Your task to perform on an android device: What is the price of a 12' ladder at Lowes? Image 0: 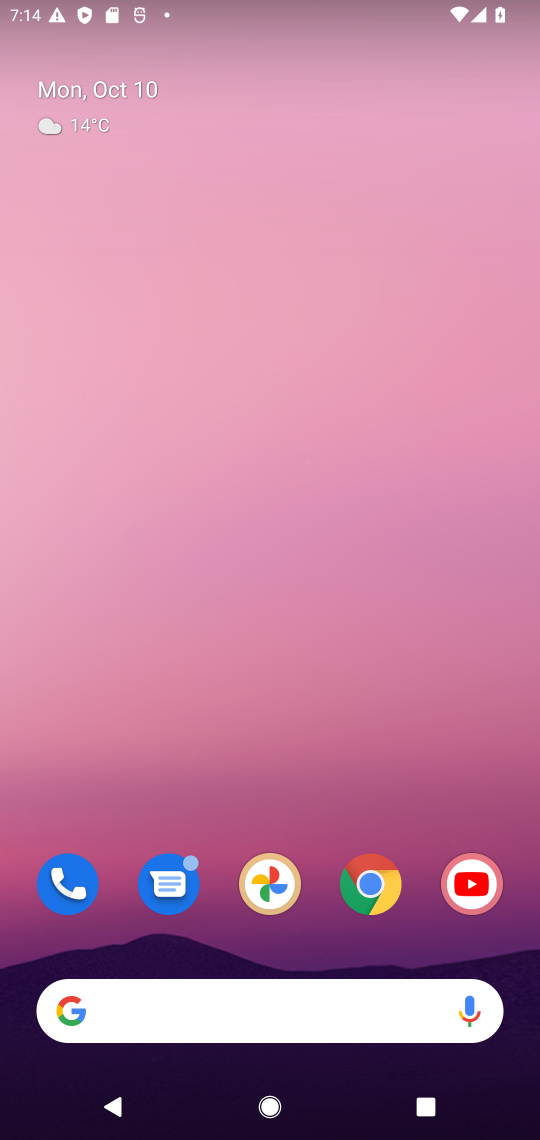
Step 0: click (337, 1024)
Your task to perform on an android device: What is the price of a 12' ladder at Lowes? Image 1: 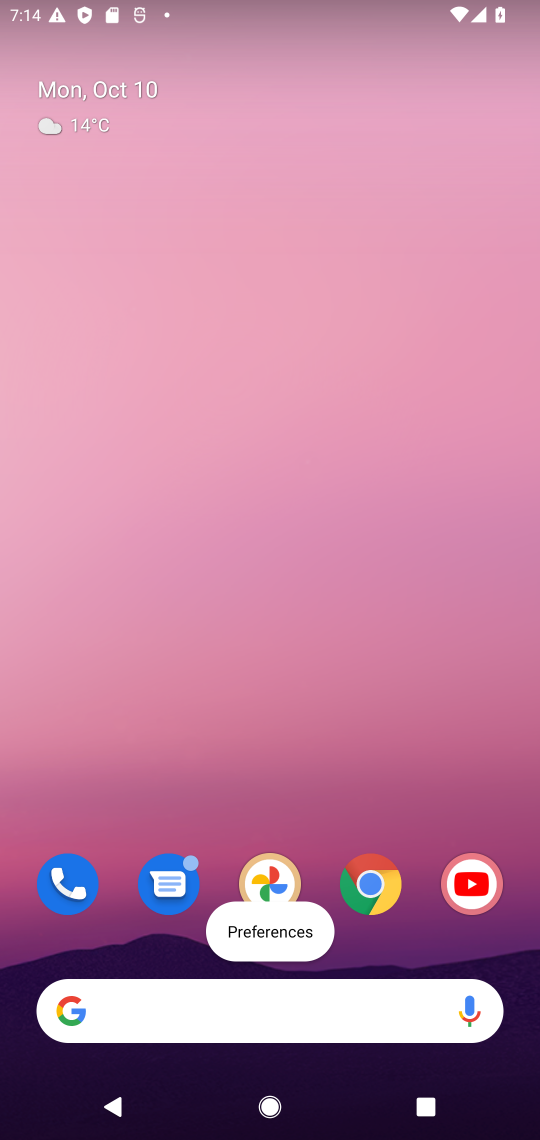
Step 1: click (346, 882)
Your task to perform on an android device: What is the price of a 12' ladder at Lowes? Image 2: 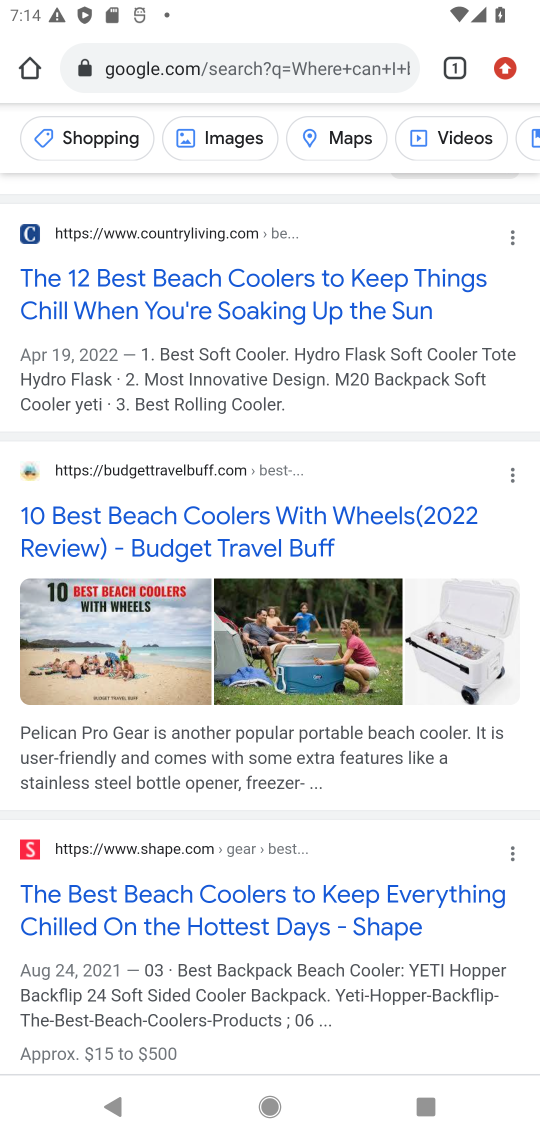
Step 2: click (323, 76)
Your task to perform on an android device: What is the price of a 12' ladder at Lowes? Image 3: 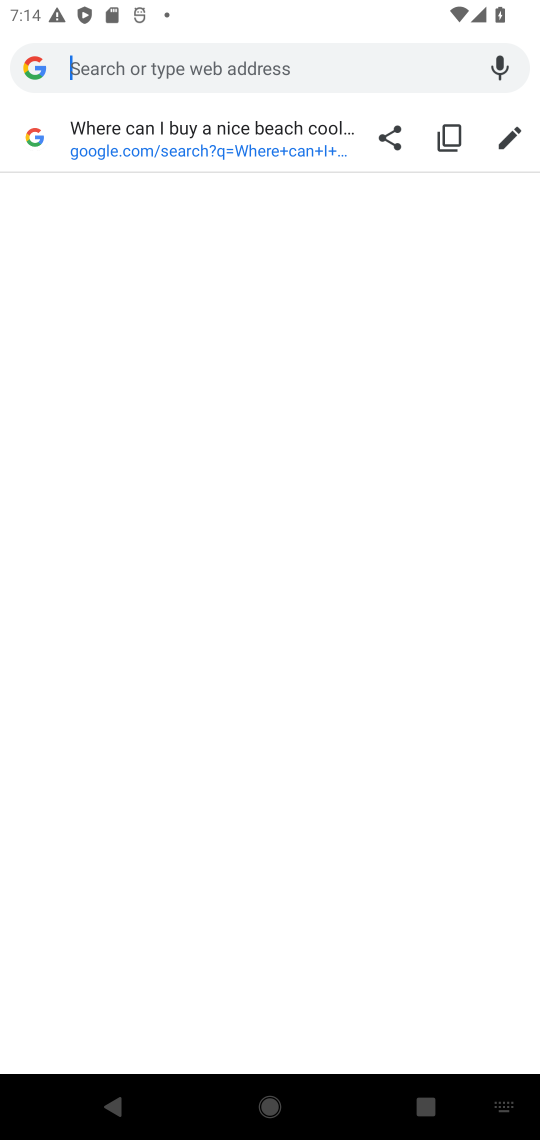
Step 3: type "What is the price of a 12' ladder at Lowes?"
Your task to perform on an android device: What is the price of a 12' ladder at Lowes? Image 4: 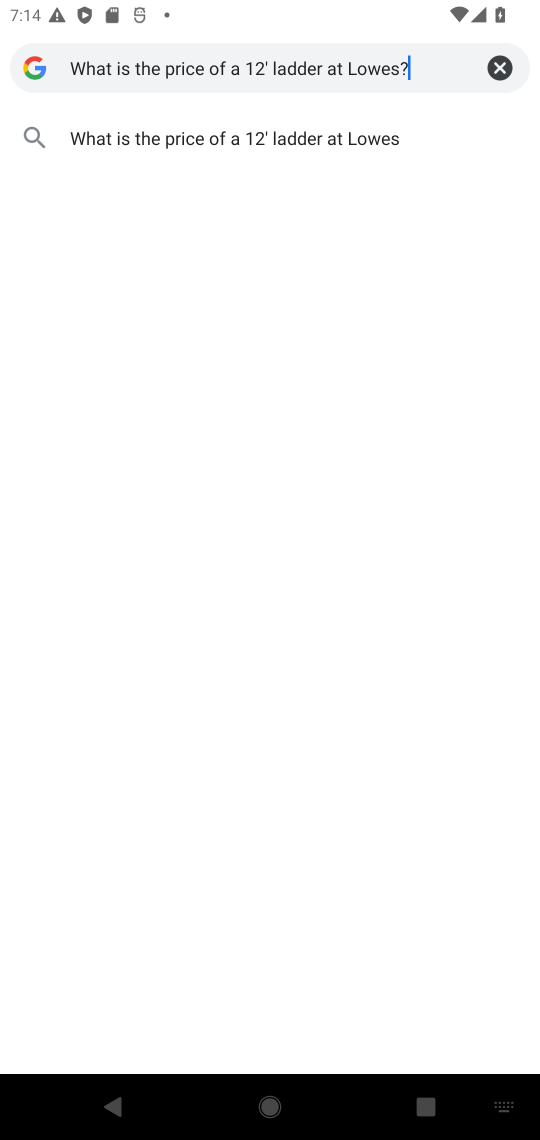
Step 4: type ""
Your task to perform on an android device: What is the price of a 12' ladder at Lowes? Image 5: 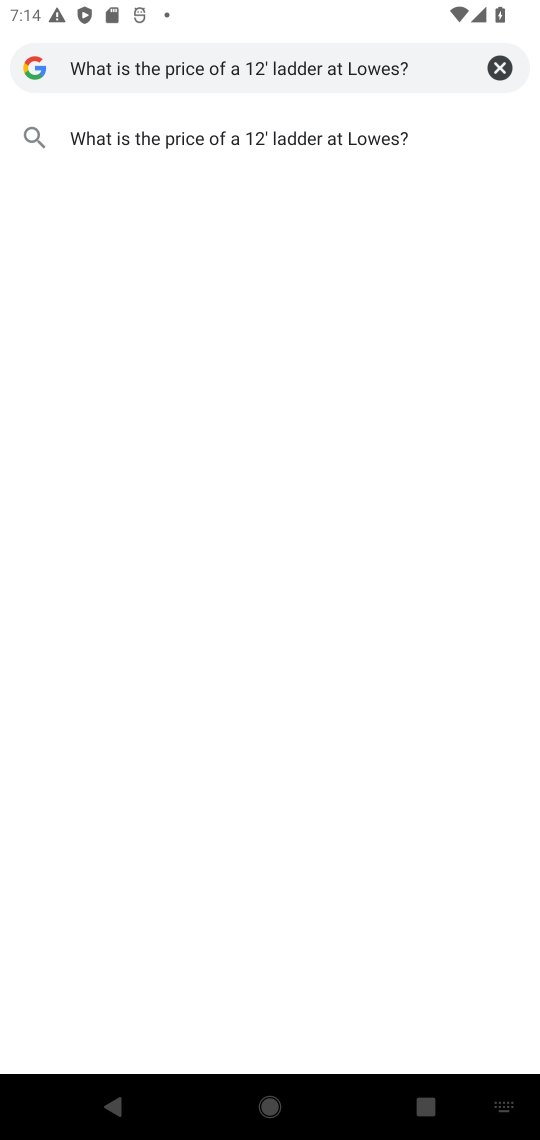
Step 5: click (361, 152)
Your task to perform on an android device: What is the price of a 12' ladder at Lowes? Image 6: 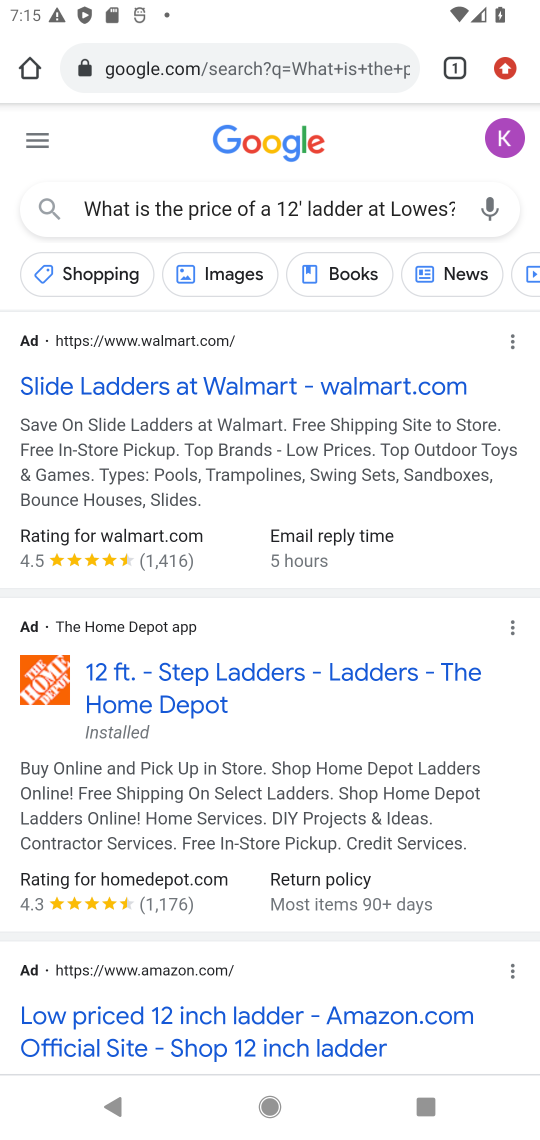
Step 6: drag from (201, 843) to (287, 421)
Your task to perform on an android device: What is the price of a 12' ladder at Lowes? Image 7: 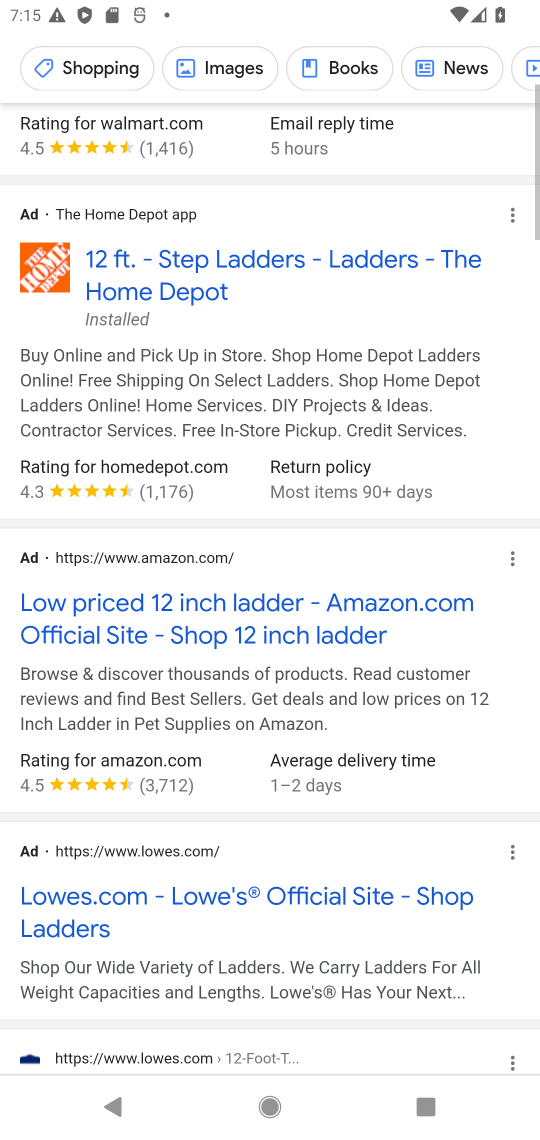
Step 7: drag from (306, 761) to (289, 362)
Your task to perform on an android device: What is the price of a 12' ladder at Lowes? Image 8: 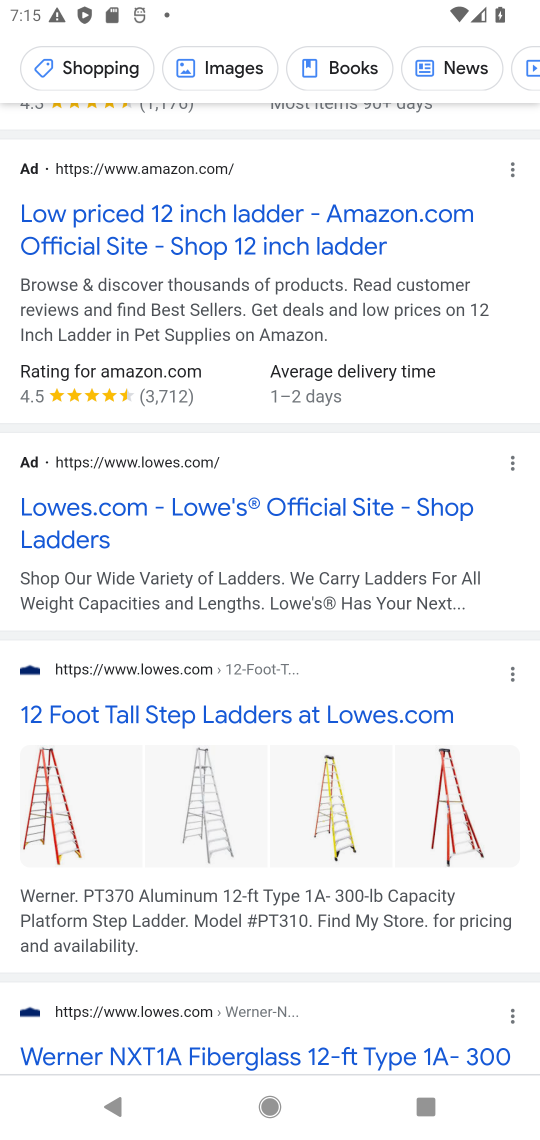
Step 8: drag from (222, 210) to (211, 832)
Your task to perform on an android device: What is the price of a 12' ladder at Lowes? Image 9: 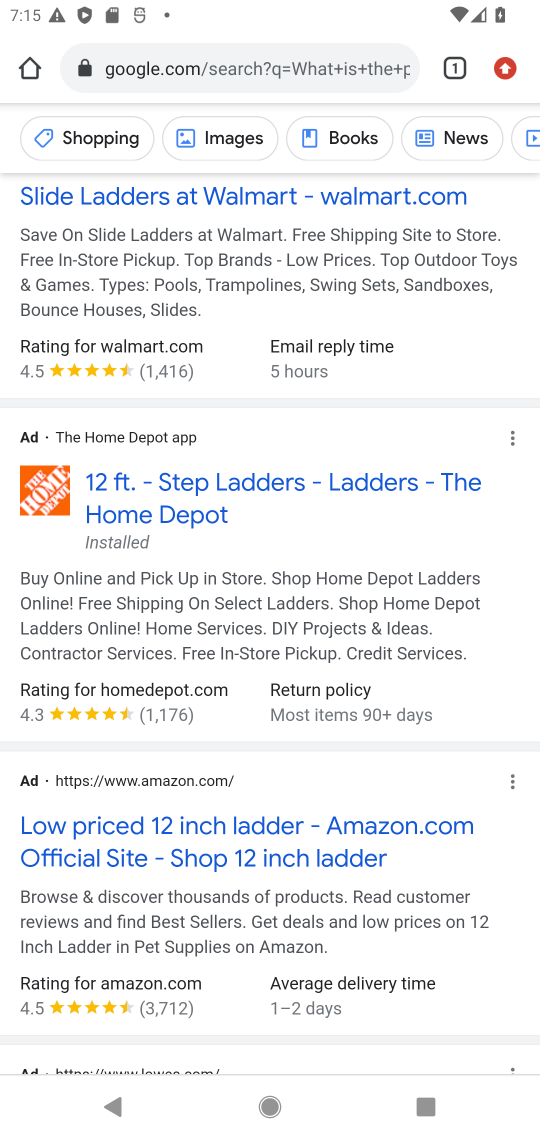
Step 9: click (130, 832)
Your task to perform on an android device: What is the price of a 12' ladder at Lowes? Image 10: 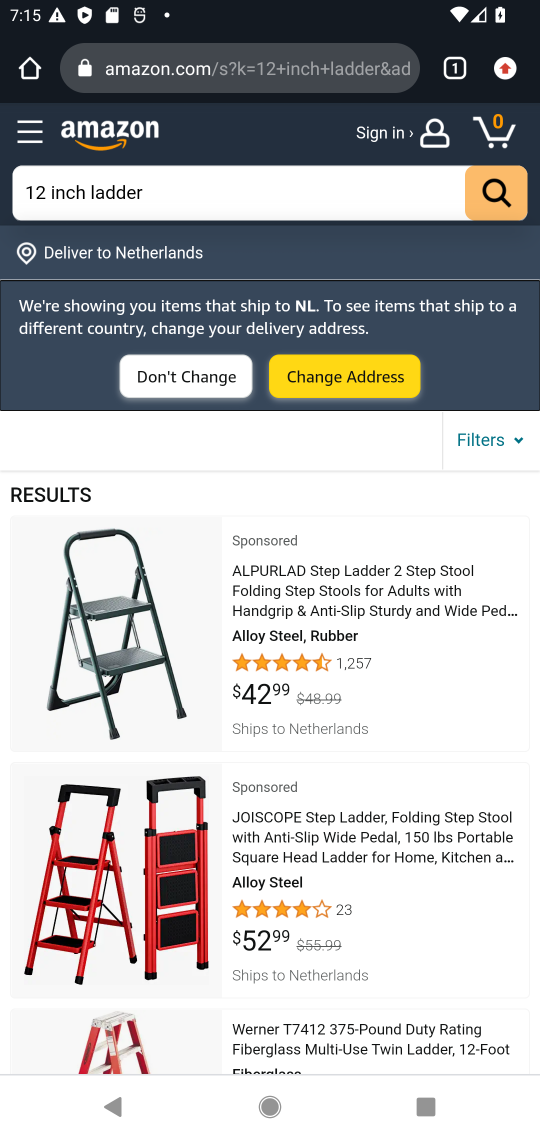
Step 10: drag from (146, 885) to (202, 469)
Your task to perform on an android device: What is the price of a 12' ladder at Lowes? Image 11: 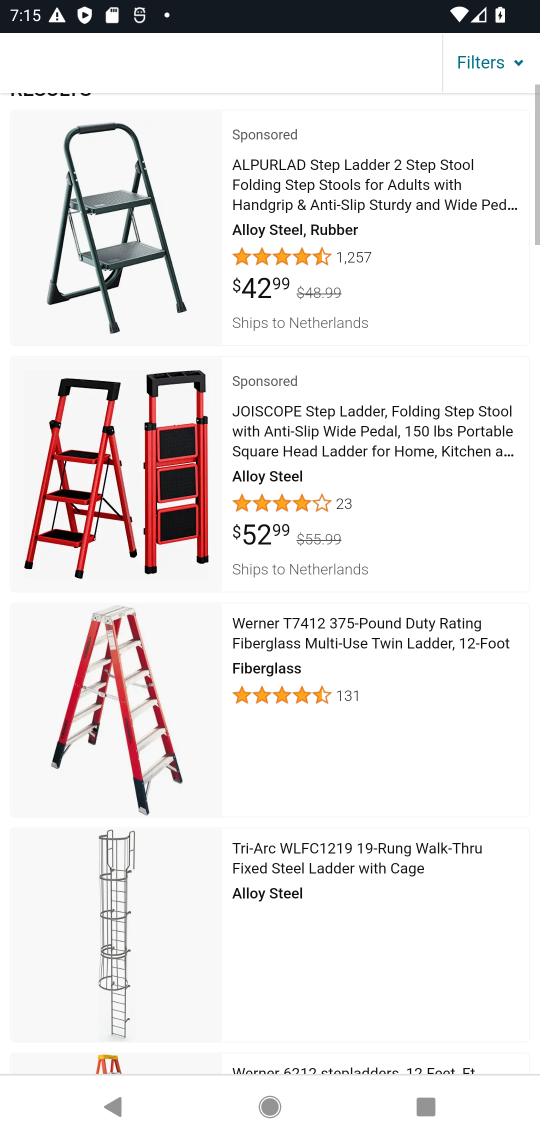
Step 11: drag from (264, 568) to (271, 442)
Your task to perform on an android device: What is the price of a 12' ladder at Lowes? Image 12: 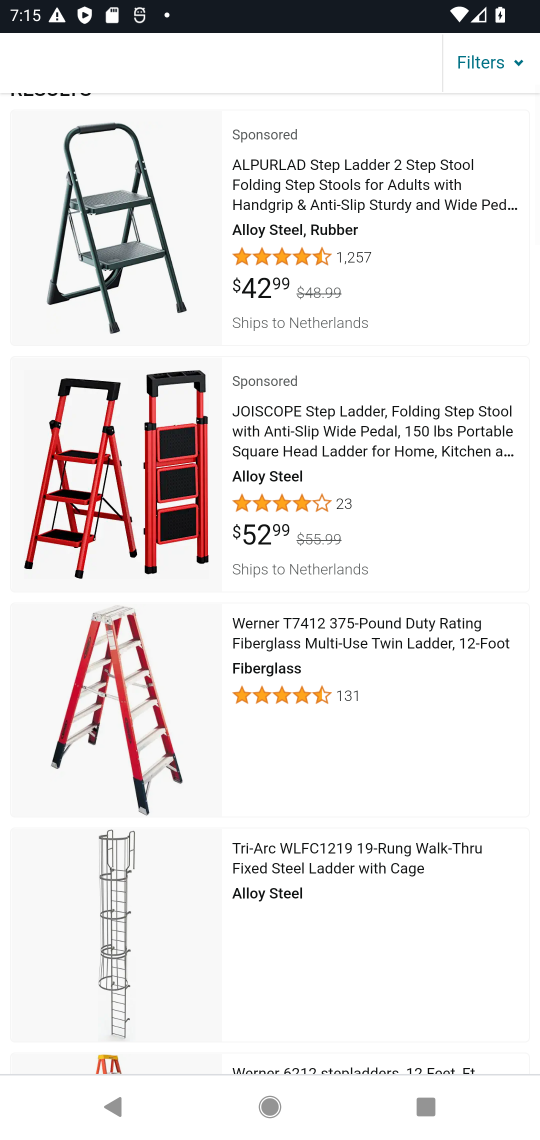
Step 12: drag from (233, 829) to (288, 418)
Your task to perform on an android device: What is the price of a 12' ladder at Lowes? Image 13: 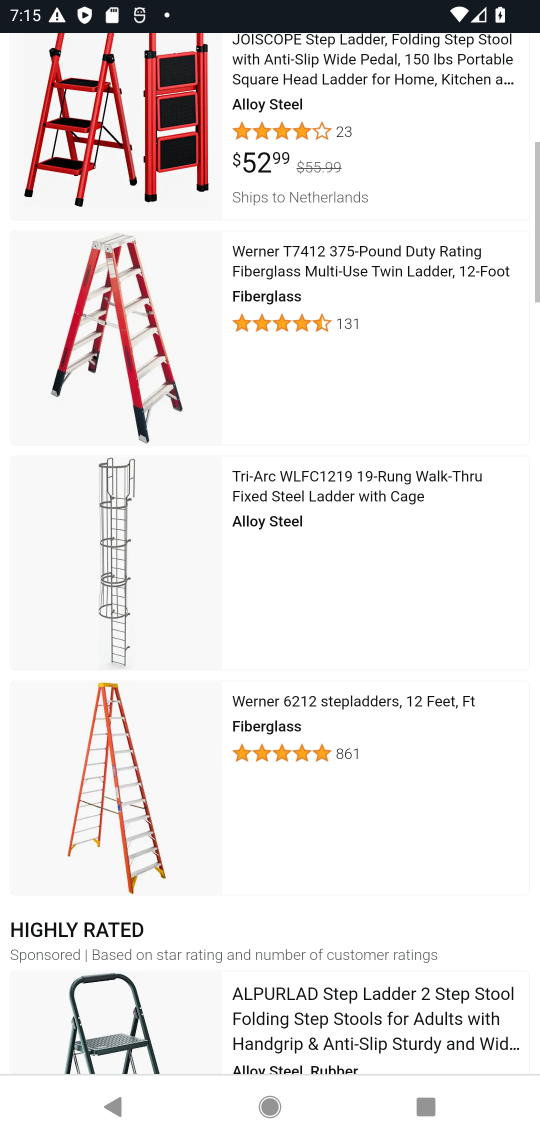
Step 13: drag from (289, 780) to (323, 348)
Your task to perform on an android device: What is the price of a 12' ladder at Lowes? Image 14: 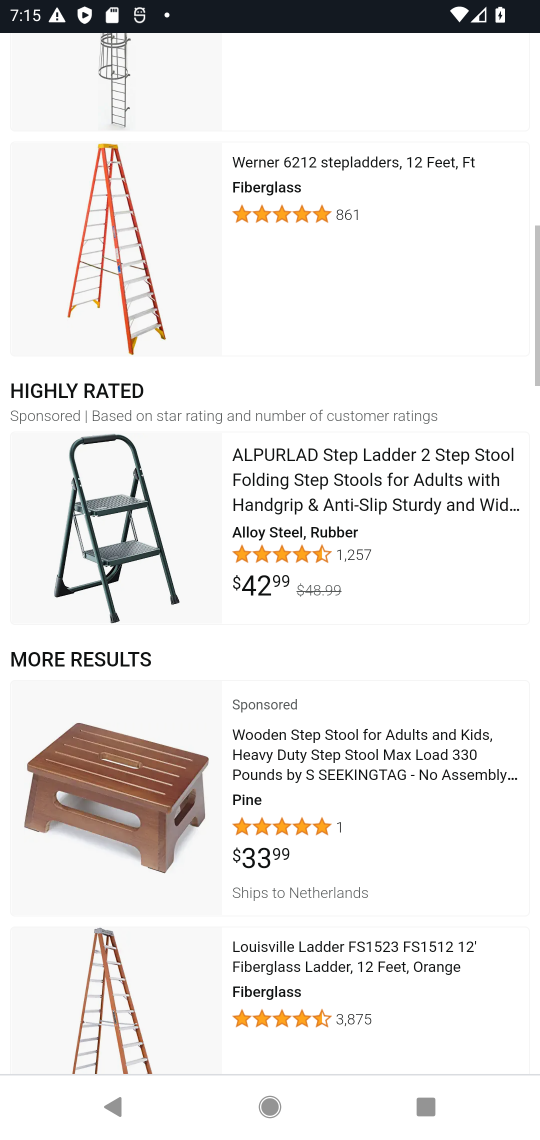
Step 14: drag from (307, 780) to (321, 515)
Your task to perform on an android device: What is the price of a 12' ladder at Lowes? Image 15: 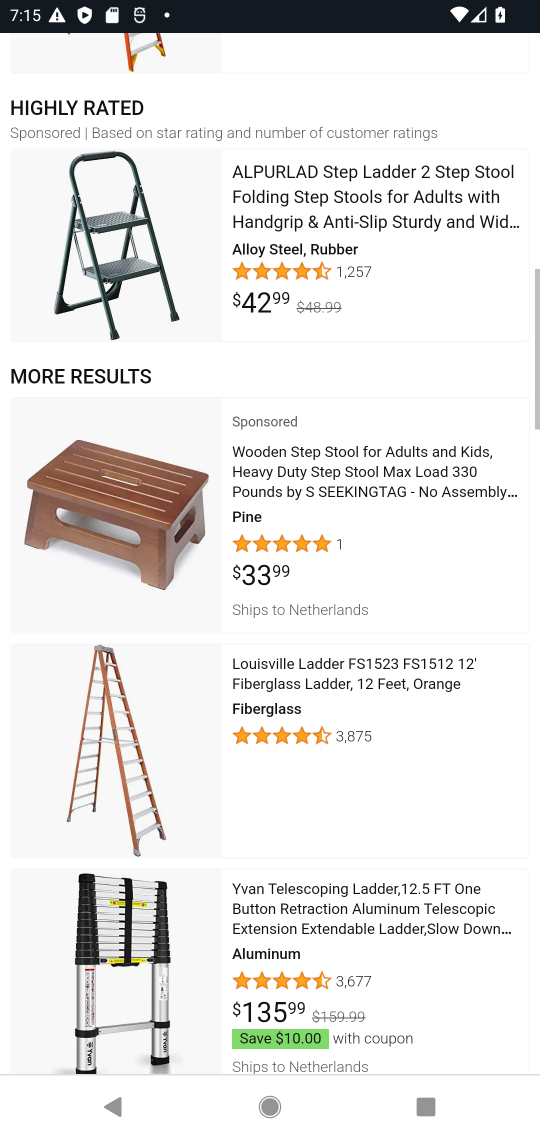
Step 15: drag from (286, 602) to (286, 491)
Your task to perform on an android device: What is the price of a 12' ladder at Lowes? Image 16: 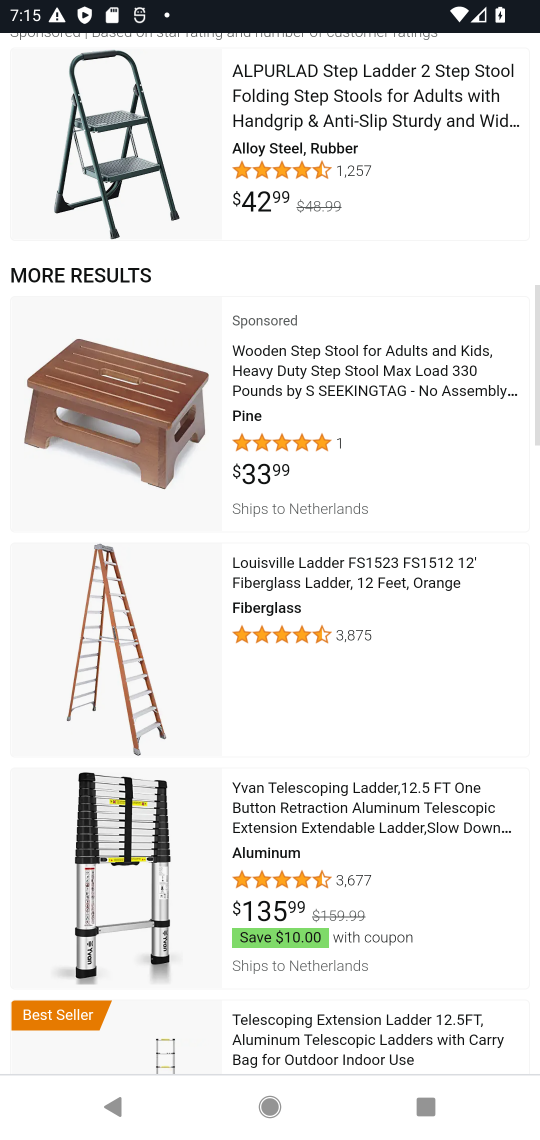
Step 16: drag from (301, 850) to (325, 538)
Your task to perform on an android device: What is the price of a 12' ladder at Lowes? Image 17: 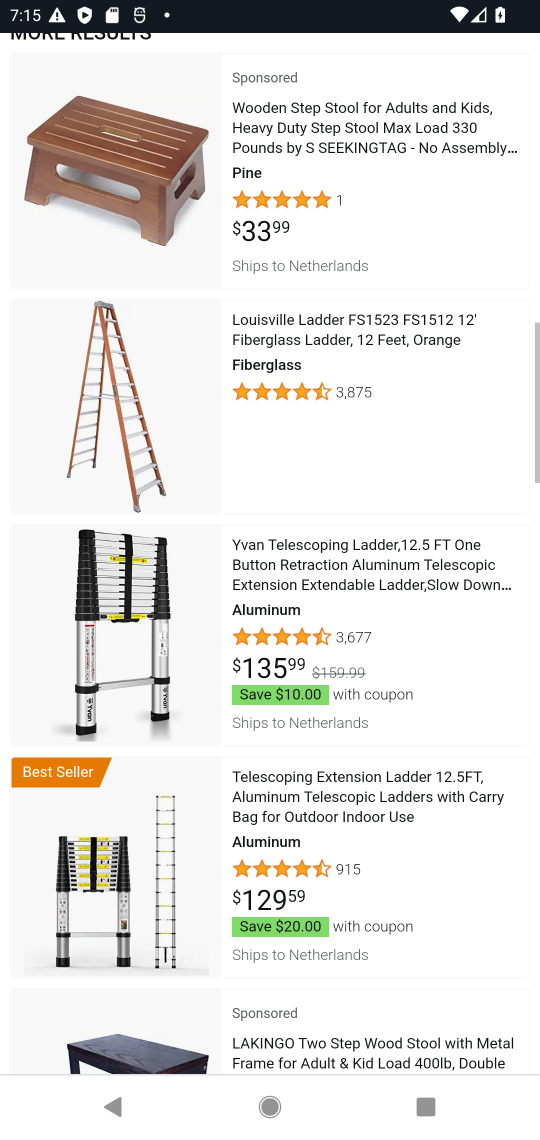
Step 17: drag from (323, 902) to (292, 431)
Your task to perform on an android device: What is the price of a 12' ladder at Lowes? Image 18: 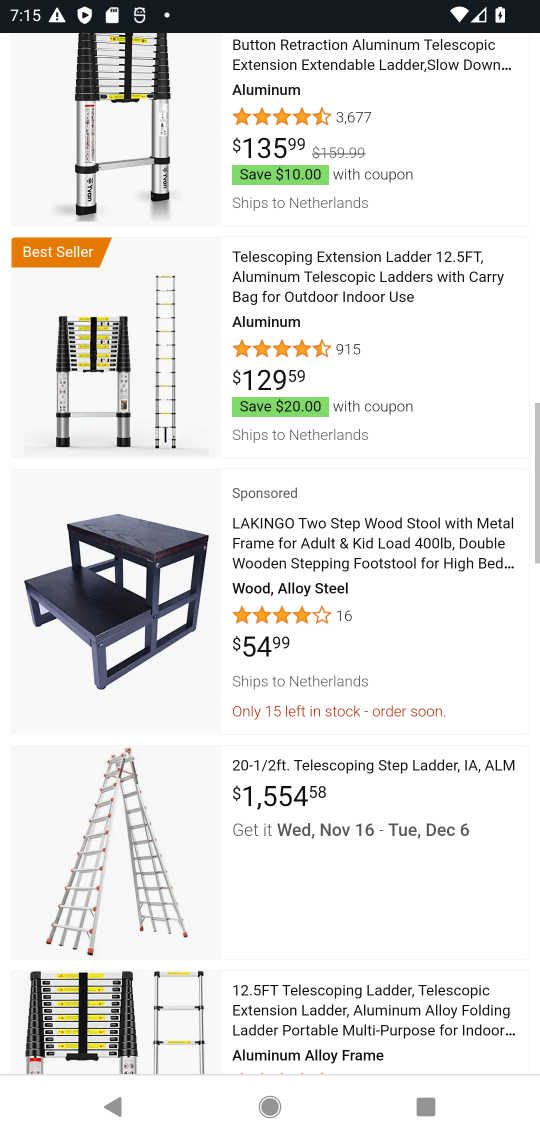
Step 18: drag from (307, 757) to (340, 500)
Your task to perform on an android device: What is the price of a 12' ladder at Lowes? Image 19: 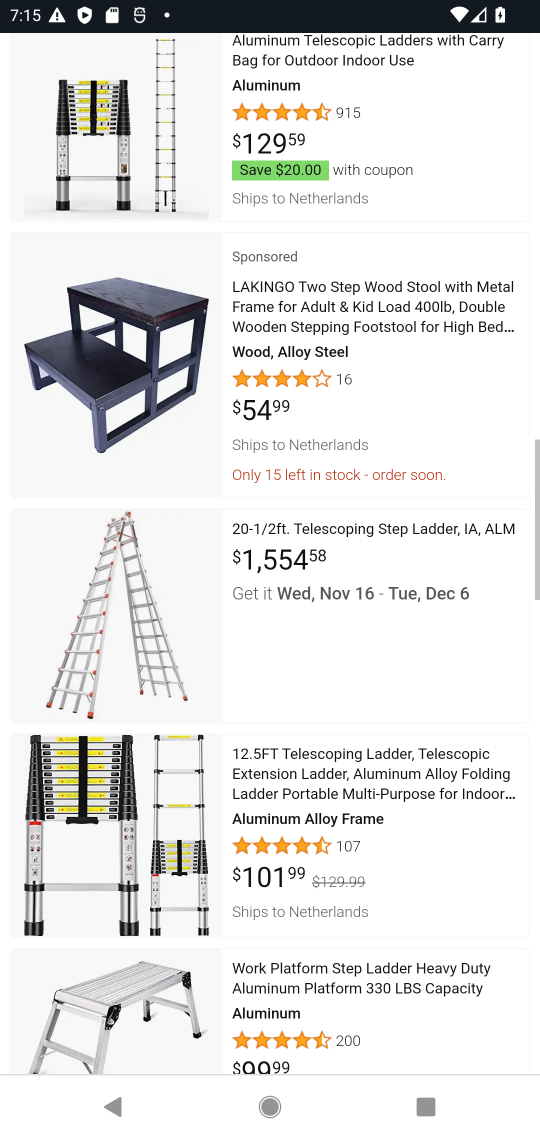
Step 19: drag from (343, 773) to (357, 524)
Your task to perform on an android device: What is the price of a 12' ladder at Lowes? Image 20: 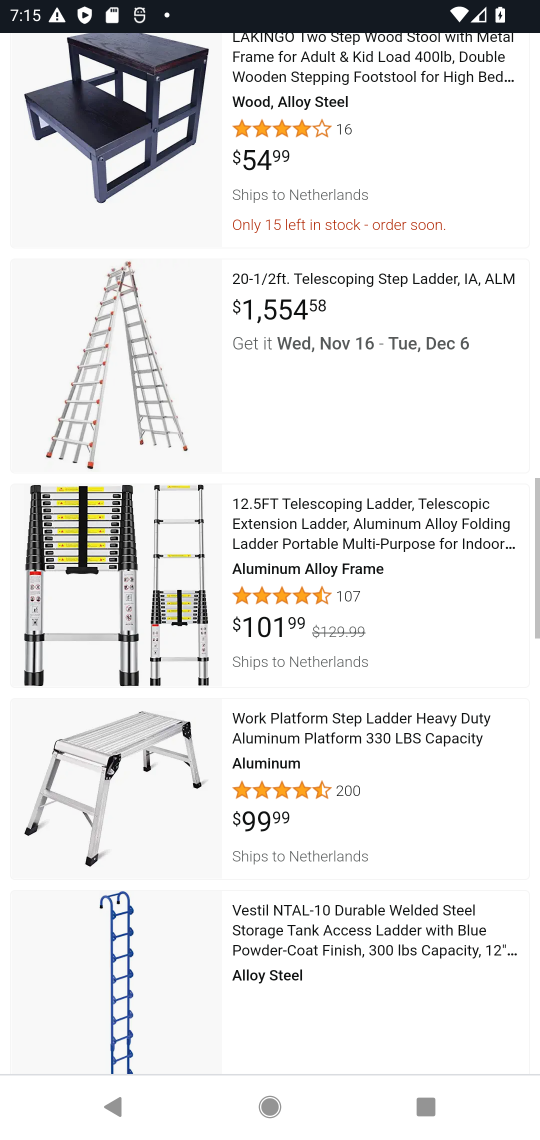
Step 20: click (368, 580)
Your task to perform on an android device: What is the price of a 12' ladder at Lowes? Image 21: 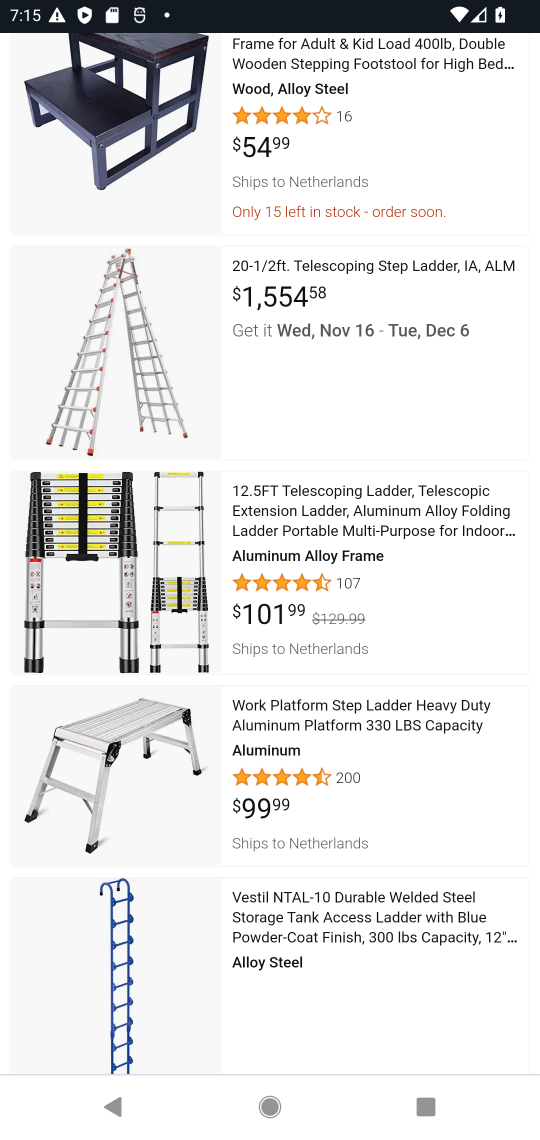
Step 21: drag from (350, 1079) to (364, 262)
Your task to perform on an android device: What is the price of a 12' ladder at Lowes? Image 22: 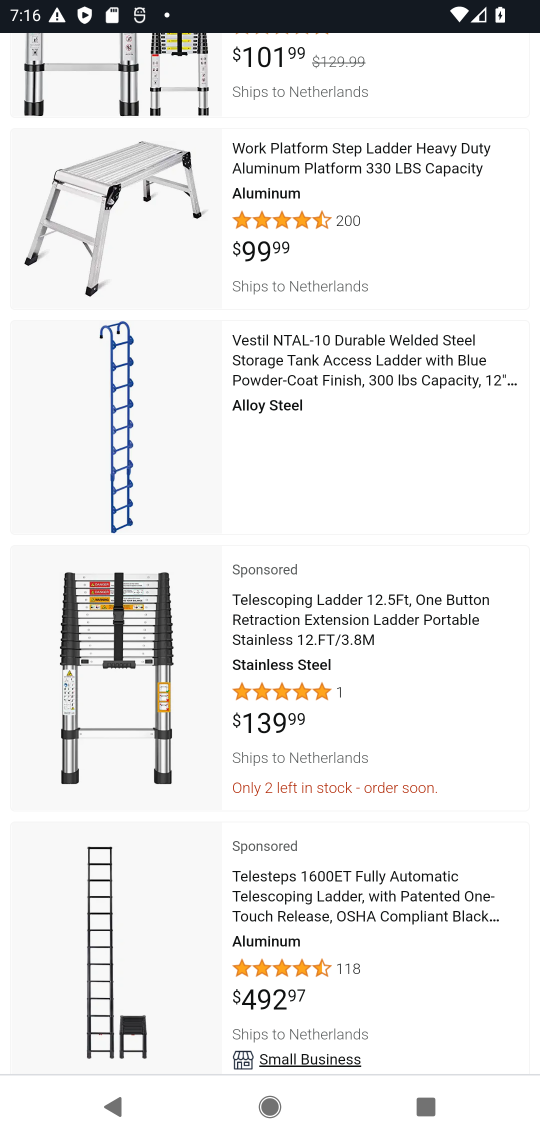
Step 22: drag from (289, 1052) to (361, 62)
Your task to perform on an android device: What is the price of a 12' ladder at Lowes? Image 23: 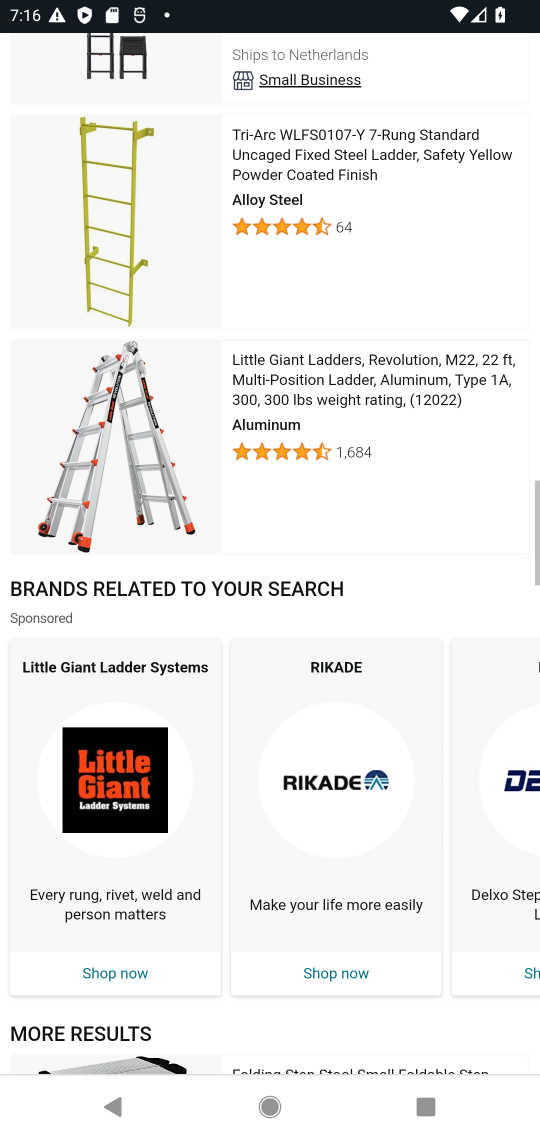
Step 23: drag from (294, 786) to (329, 195)
Your task to perform on an android device: What is the price of a 12' ladder at Lowes? Image 24: 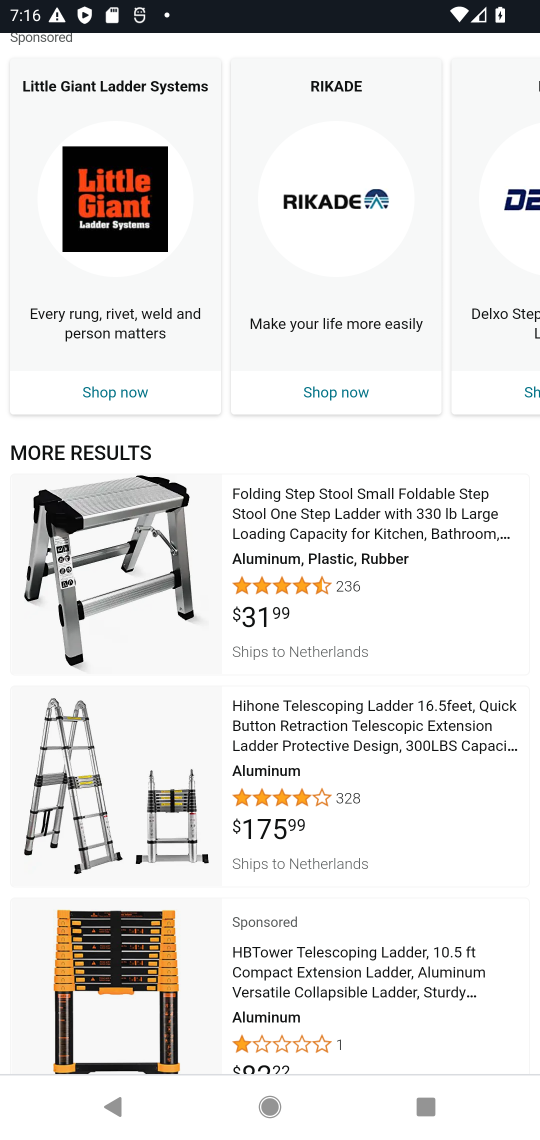
Step 24: drag from (329, 817) to (389, 248)
Your task to perform on an android device: What is the price of a 12' ladder at Lowes? Image 25: 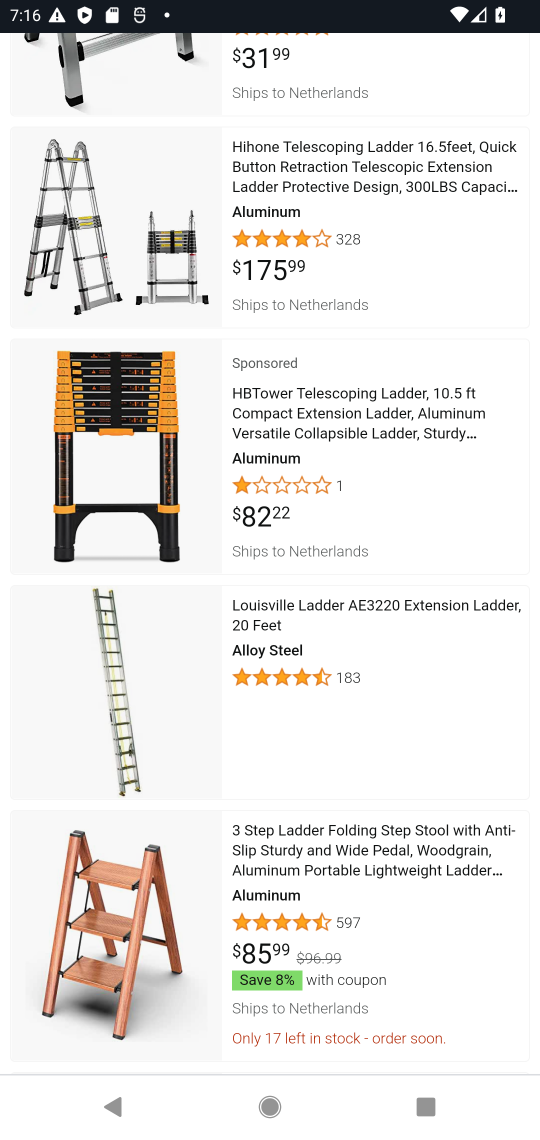
Step 25: drag from (346, 844) to (350, 121)
Your task to perform on an android device: What is the price of a 12' ladder at Lowes? Image 26: 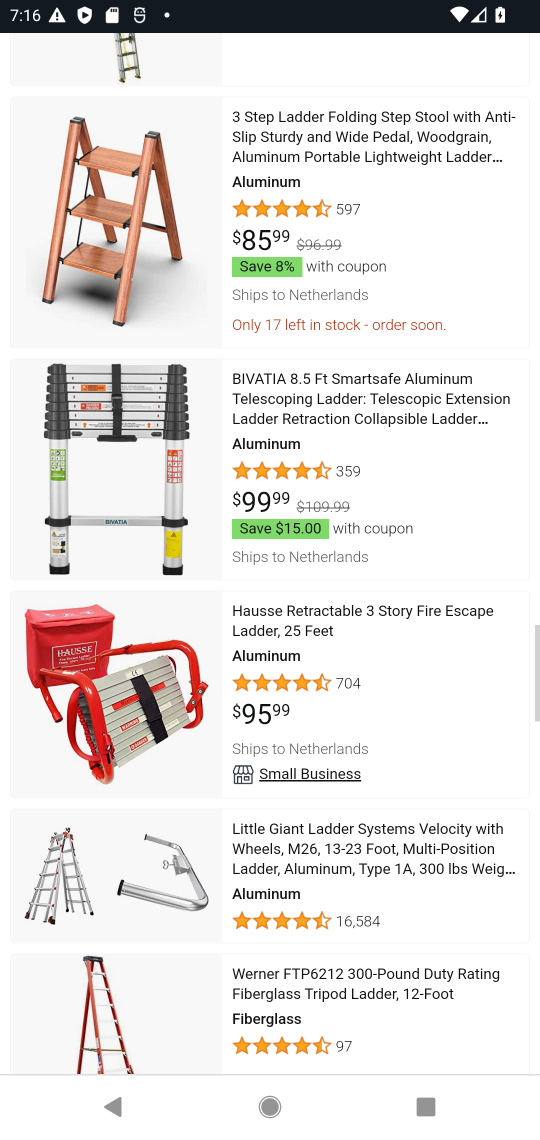
Step 26: drag from (285, 841) to (318, 251)
Your task to perform on an android device: What is the price of a 12' ladder at Lowes? Image 27: 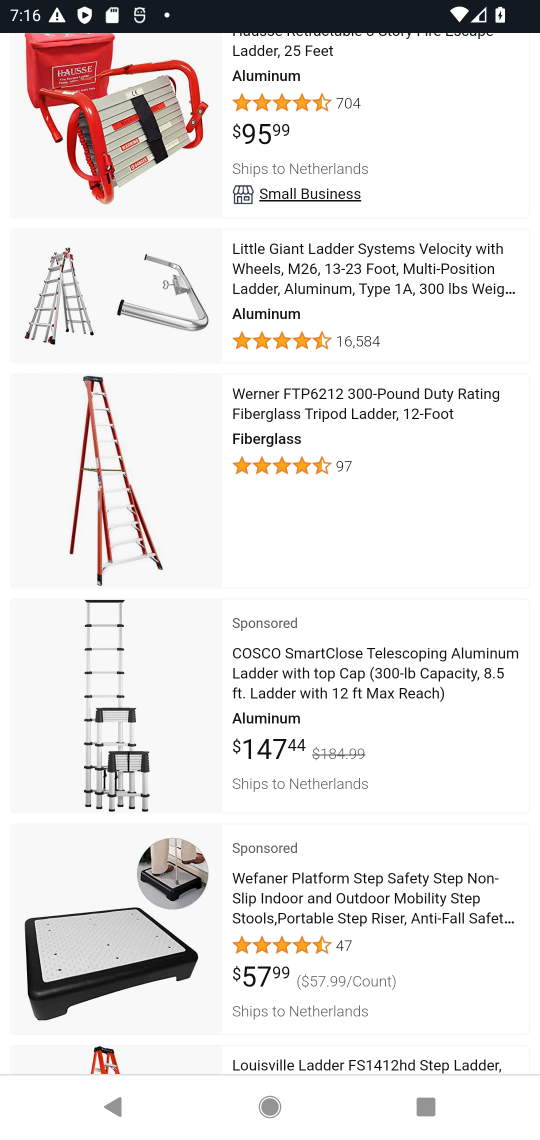
Step 27: drag from (362, 221) to (458, 716)
Your task to perform on an android device: What is the price of a 12' ladder at Lowes? Image 28: 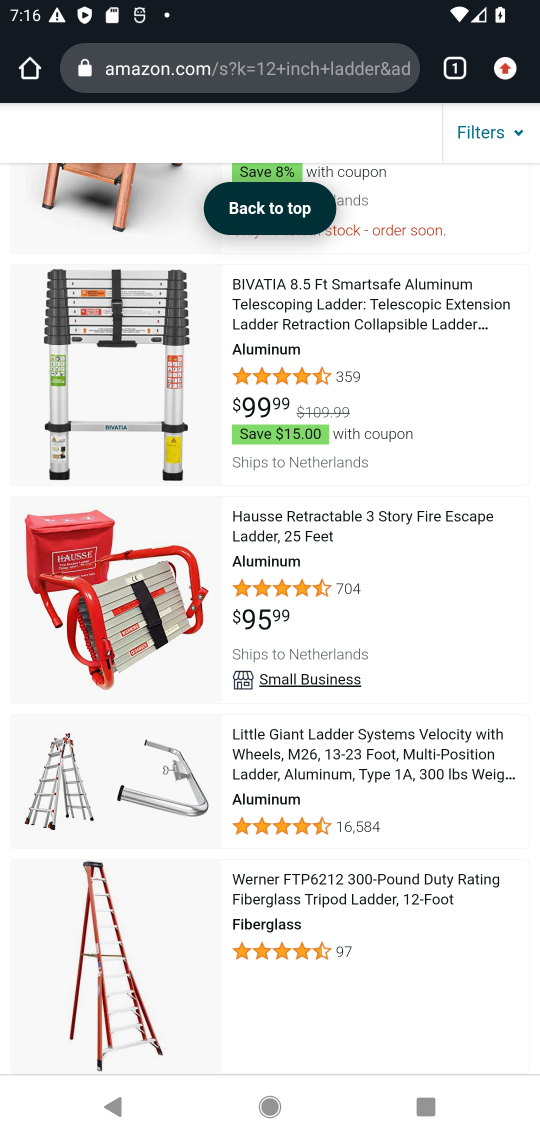
Step 28: press back button
Your task to perform on an android device: What is the price of a 12' ladder at Lowes? Image 29: 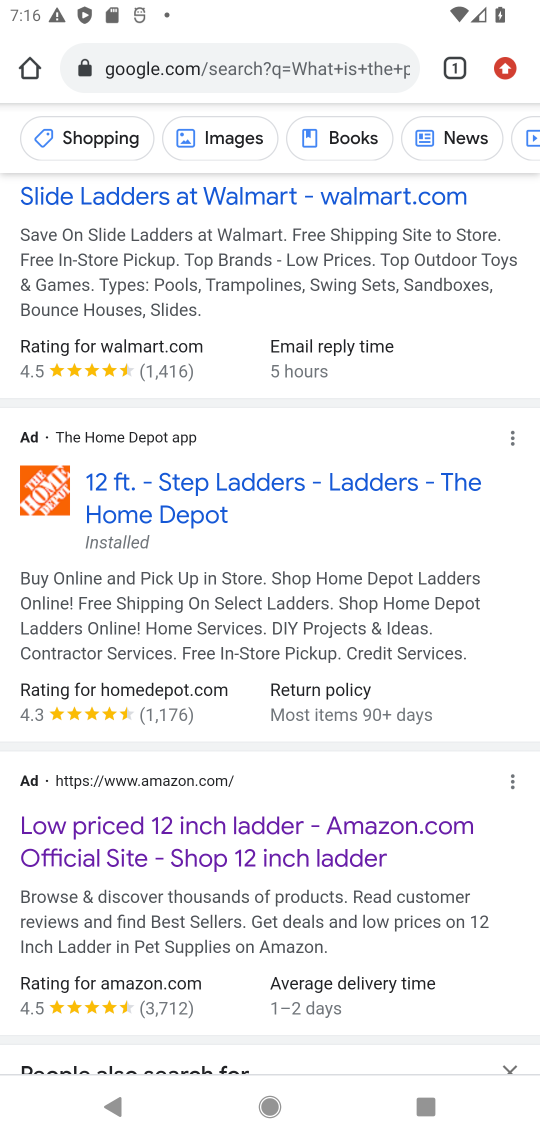
Step 29: click (233, 196)
Your task to perform on an android device: What is the price of a 12' ladder at Lowes? Image 30: 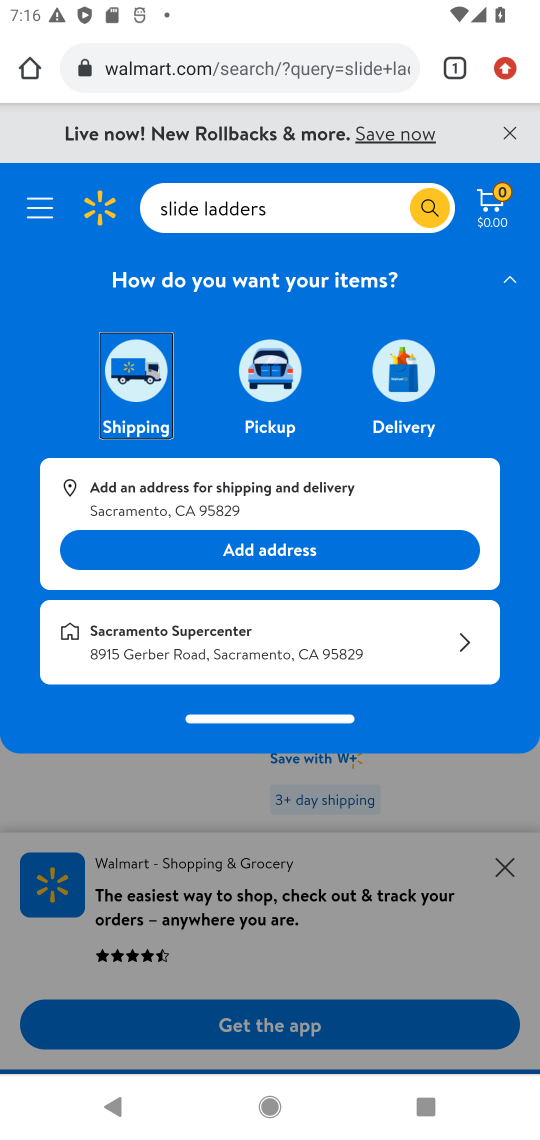
Step 30: click (510, 142)
Your task to perform on an android device: What is the price of a 12' ladder at Lowes? Image 31: 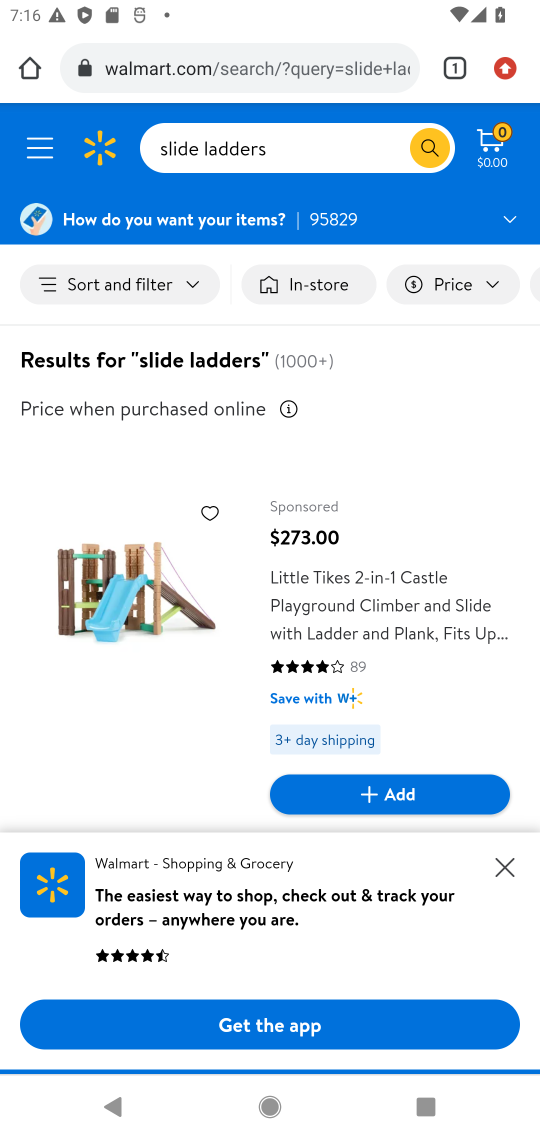
Step 31: task complete